Your task to perform on an android device: turn vacation reply on in the gmail app Image 0: 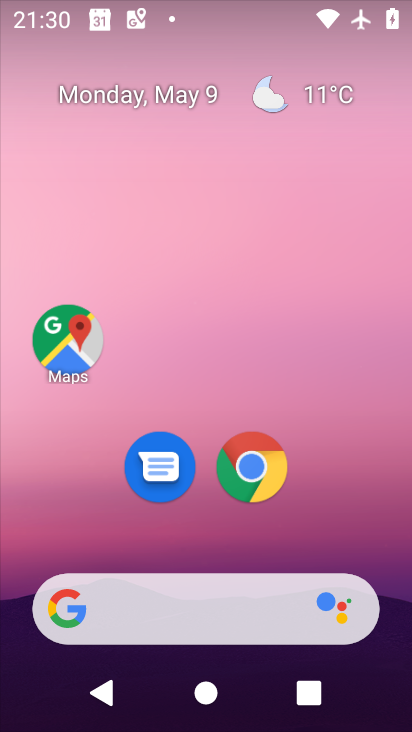
Step 0: drag from (352, 421) to (362, 247)
Your task to perform on an android device: turn vacation reply on in the gmail app Image 1: 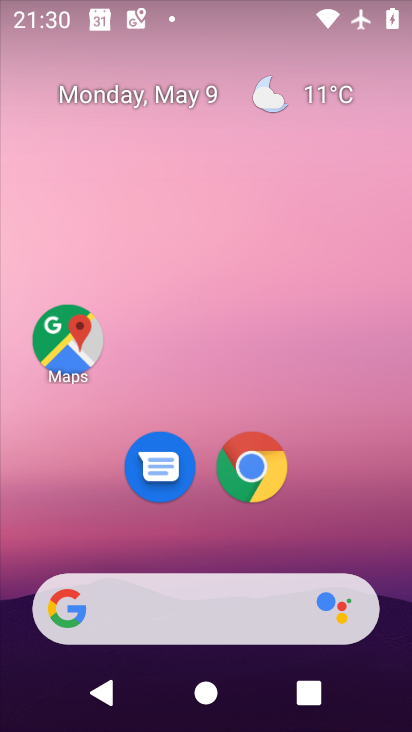
Step 1: click (329, 472)
Your task to perform on an android device: turn vacation reply on in the gmail app Image 2: 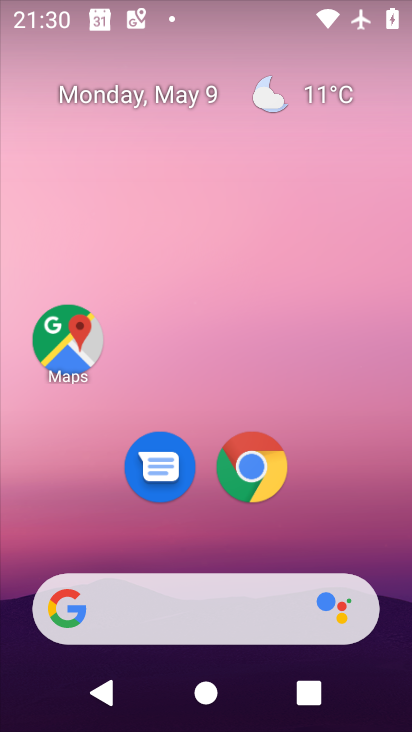
Step 2: drag from (309, 569) to (350, 275)
Your task to perform on an android device: turn vacation reply on in the gmail app Image 3: 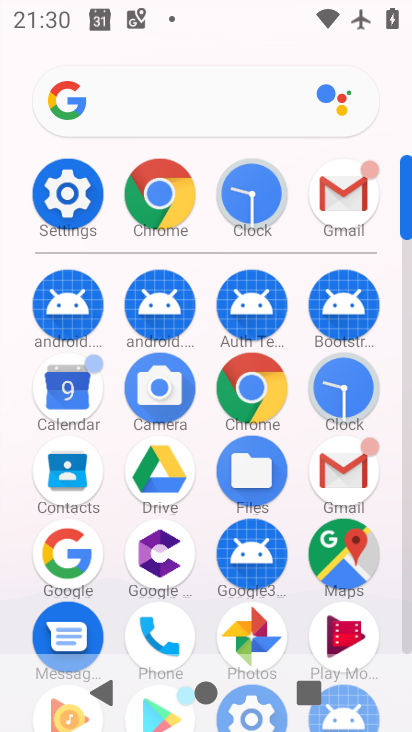
Step 3: click (345, 192)
Your task to perform on an android device: turn vacation reply on in the gmail app Image 4: 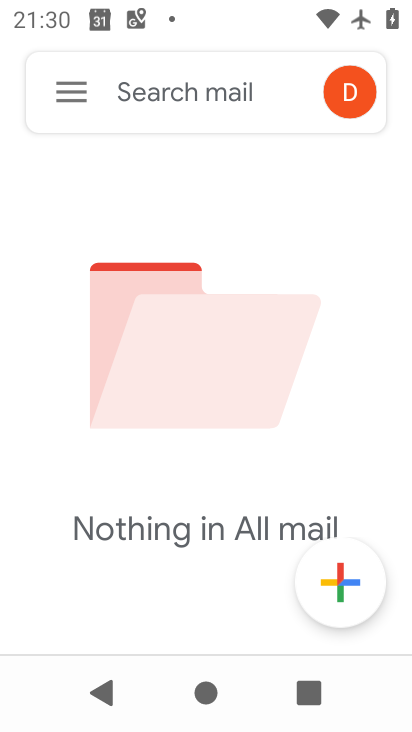
Step 4: click (53, 81)
Your task to perform on an android device: turn vacation reply on in the gmail app Image 5: 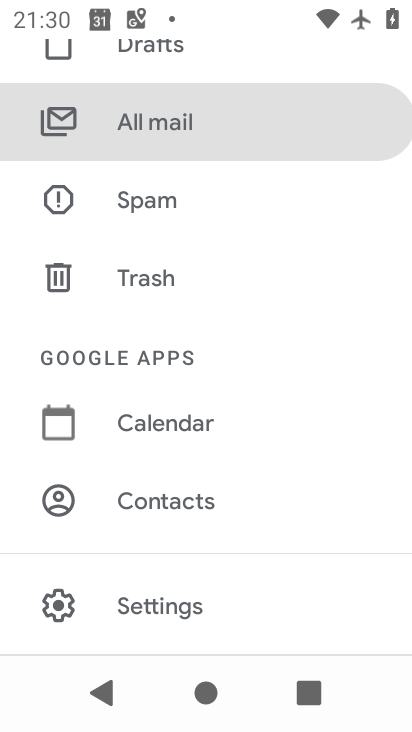
Step 5: click (132, 590)
Your task to perform on an android device: turn vacation reply on in the gmail app Image 6: 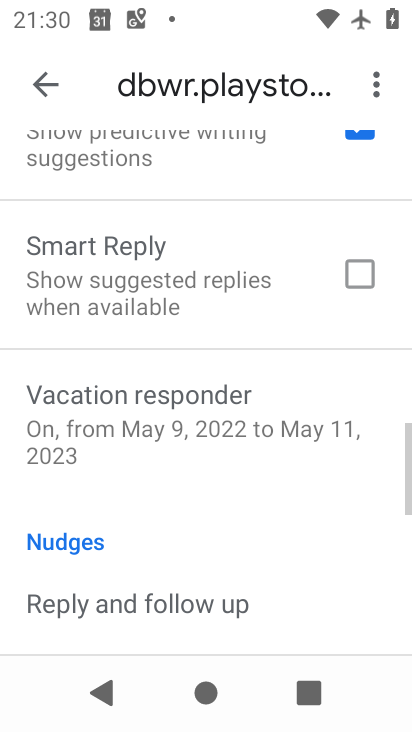
Step 6: click (197, 430)
Your task to perform on an android device: turn vacation reply on in the gmail app Image 7: 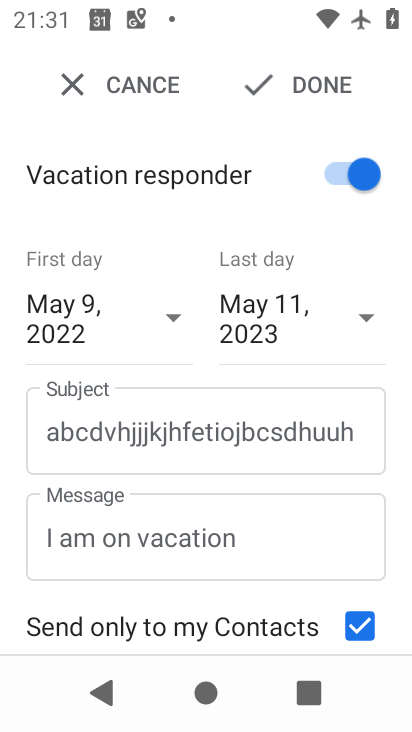
Step 7: task complete